Your task to perform on an android device: remove spam from my inbox in the gmail app Image 0: 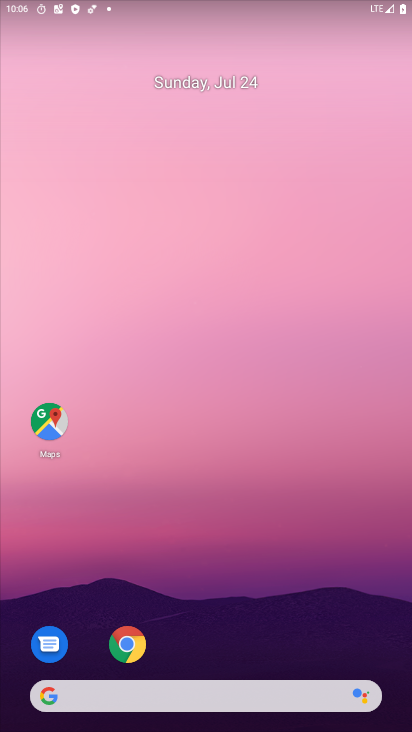
Step 0: drag from (199, 636) to (272, 125)
Your task to perform on an android device: remove spam from my inbox in the gmail app Image 1: 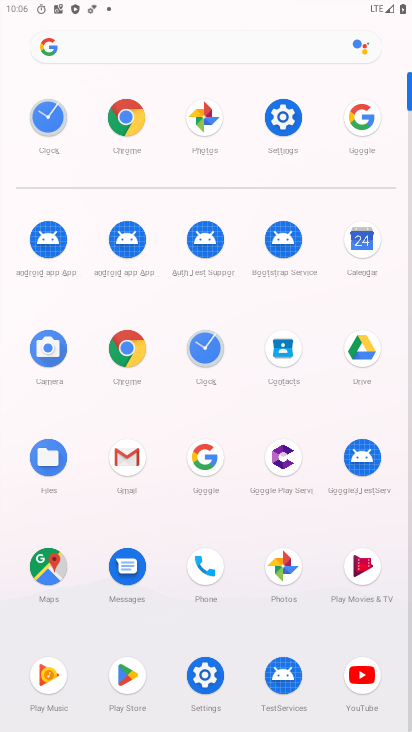
Step 1: click (120, 463)
Your task to perform on an android device: remove spam from my inbox in the gmail app Image 2: 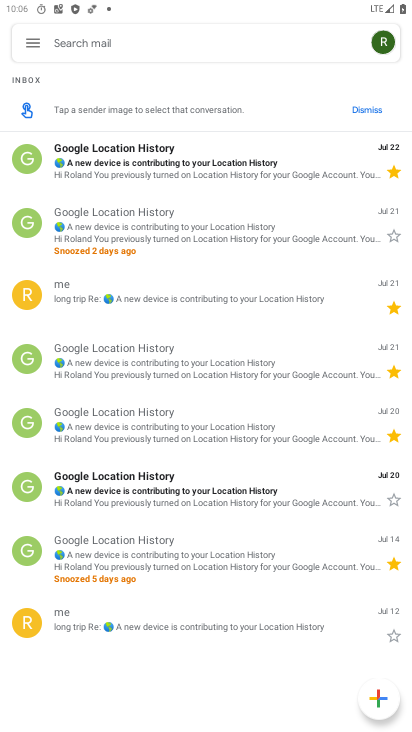
Step 2: click (27, 46)
Your task to perform on an android device: remove spam from my inbox in the gmail app Image 3: 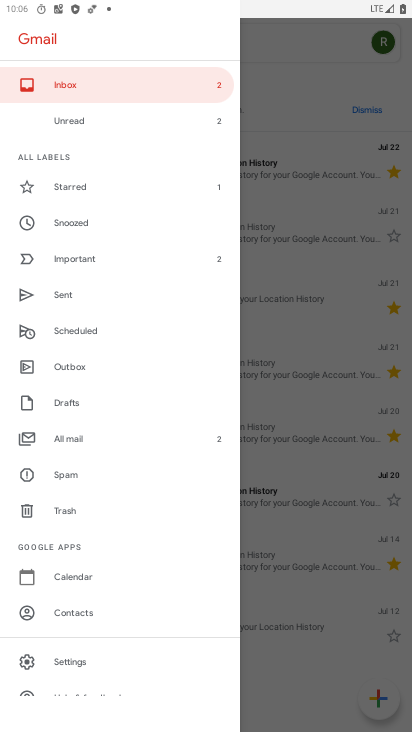
Step 3: click (74, 477)
Your task to perform on an android device: remove spam from my inbox in the gmail app Image 4: 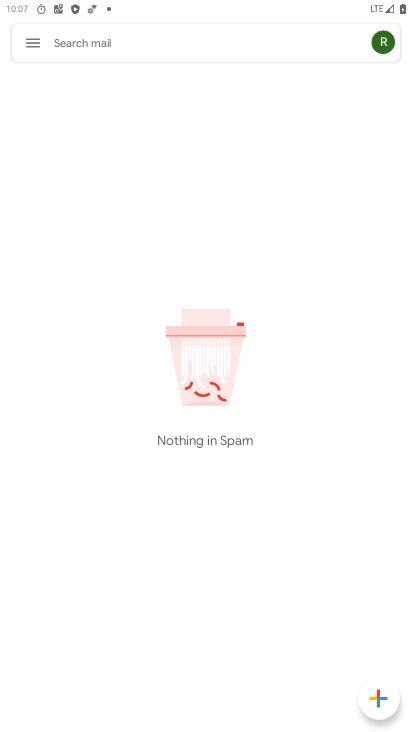
Step 4: task complete